Your task to perform on an android device: turn off improve location accuracy Image 0: 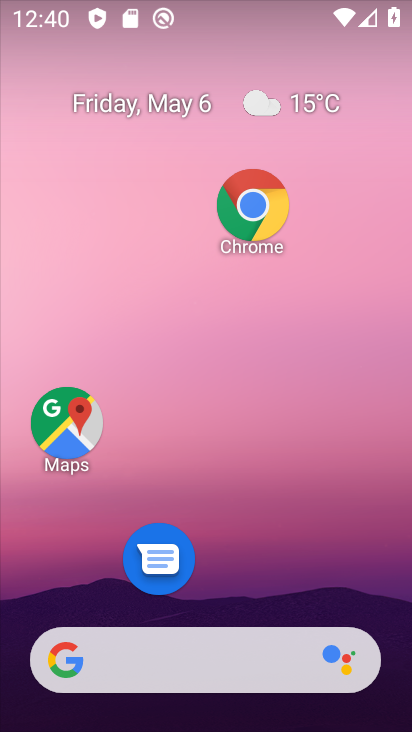
Step 0: drag from (241, 629) to (215, 26)
Your task to perform on an android device: turn off improve location accuracy Image 1: 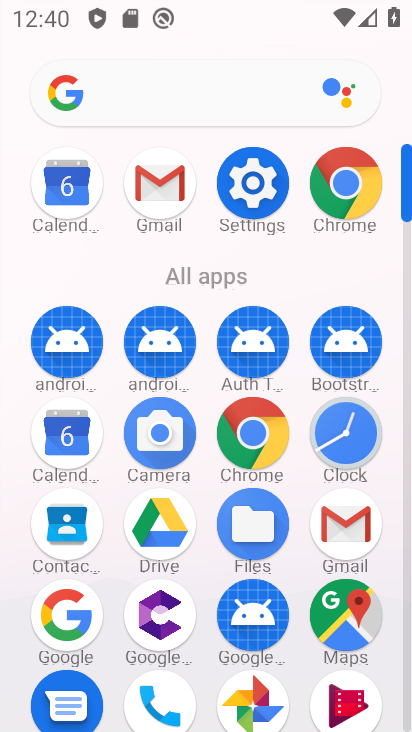
Step 1: click (235, 212)
Your task to perform on an android device: turn off improve location accuracy Image 2: 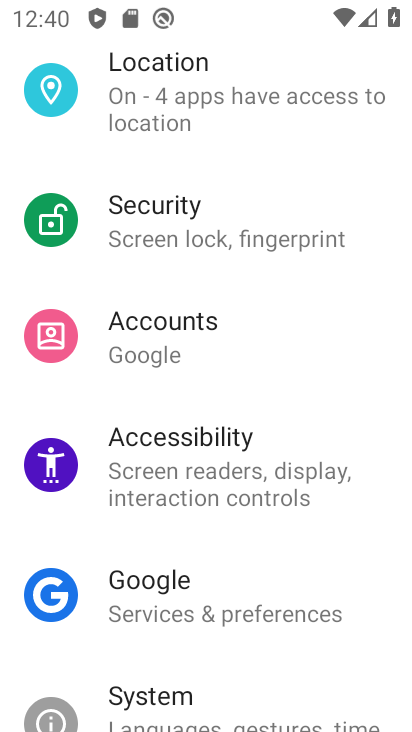
Step 2: click (167, 69)
Your task to perform on an android device: turn off improve location accuracy Image 3: 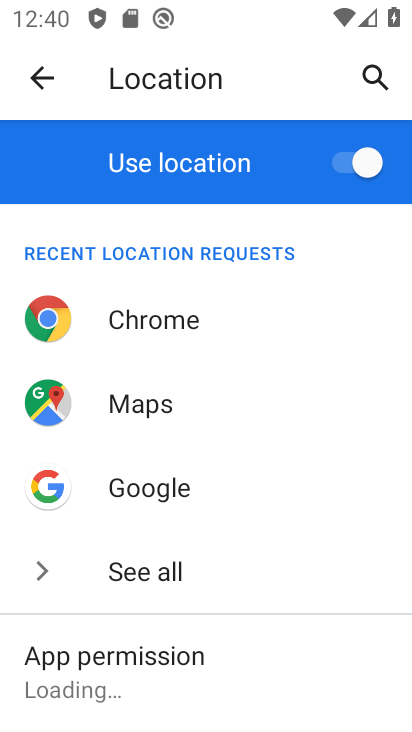
Step 3: drag from (335, 664) to (321, 13)
Your task to perform on an android device: turn off improve location accuracy Image 4: 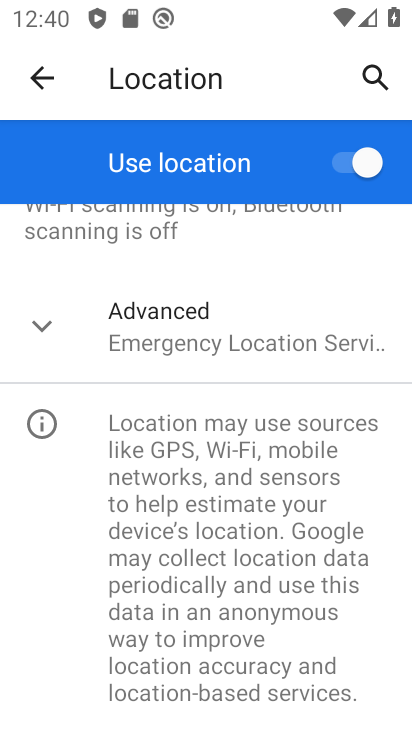
Step 4: click (109, 320)
Your task to perform on an android device: turn off improve location accuracy Image 5: 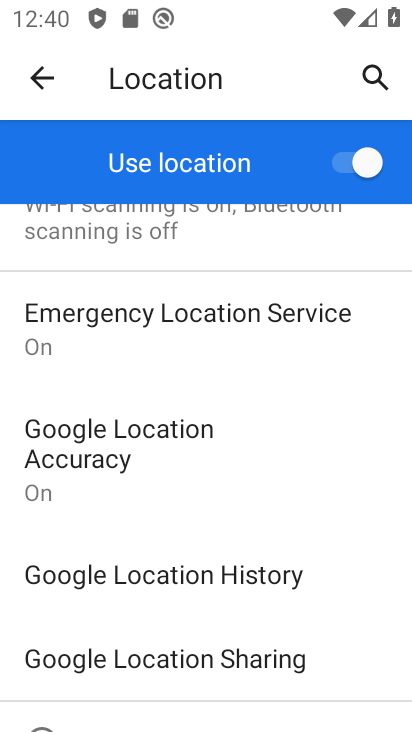
Step 5: click (153, 481)
Your task to perform on an android device: turn off improve location accuracy Image 6: 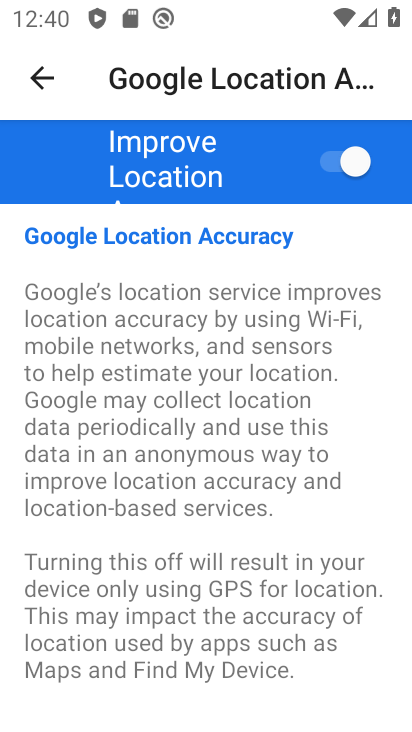
Step 6: click (345, 150)
Your task to perform on an android device: turn off improve location accuracy Image 7: 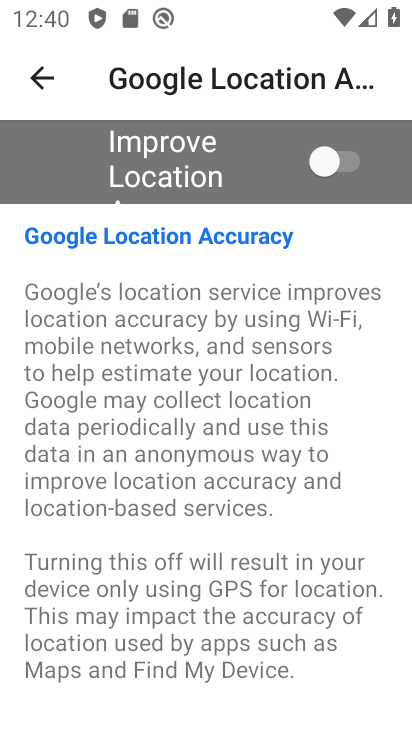
Step 7: task complete